Your task to perform on an android device: Open maps Image 0: 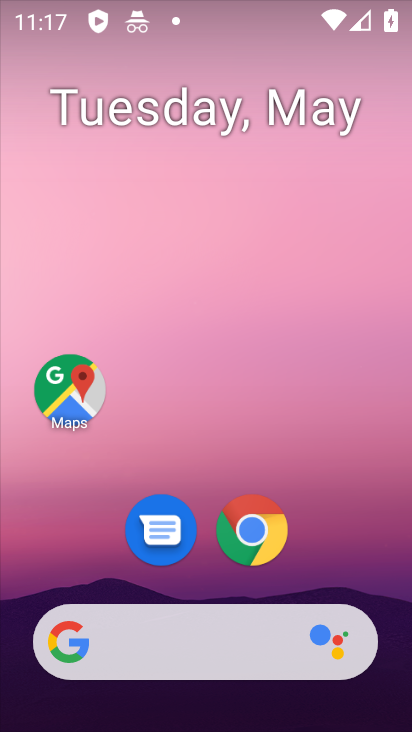
Step 0: click (40, 408)
Your task to perform on an android device: Open maps Image 1: 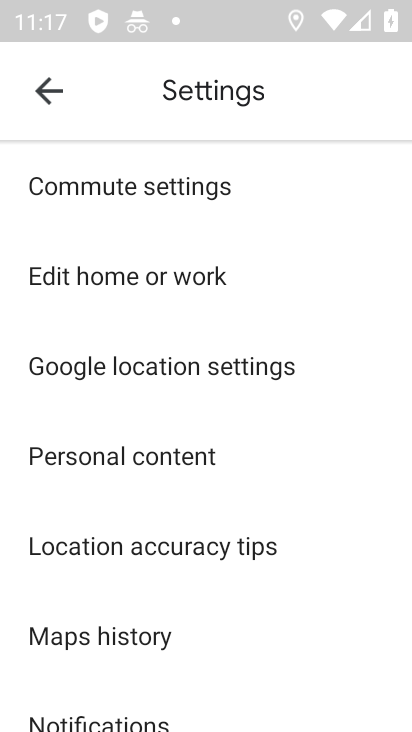
Step 1: task complete